Your task to perform on an android device: Open display settings Image 0: 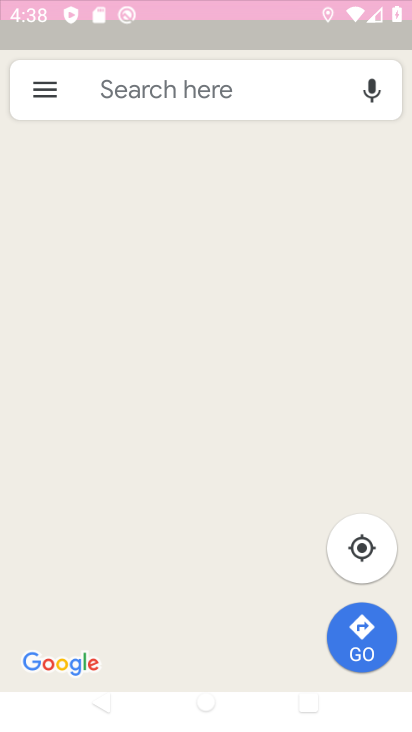
Step 0: click (230, 120)
Your task to perform on an android device: Open display settings Image 1: 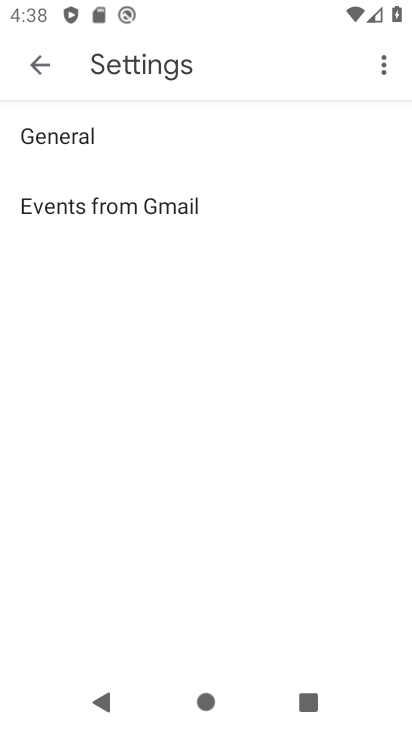
Step 1: click (34, 60)
Your task to perform on an android device: Open display settings Image 2: 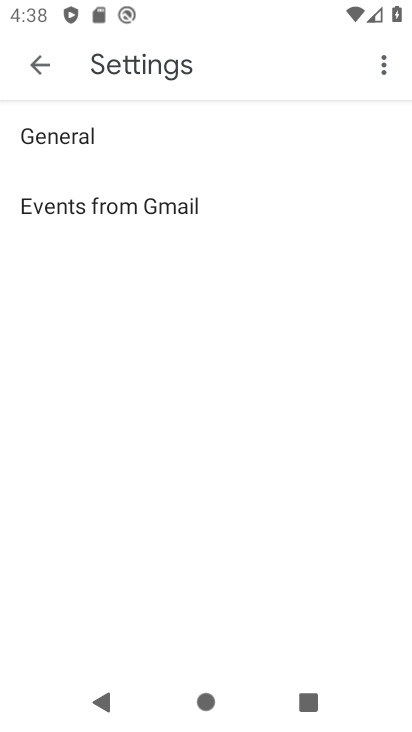
Step 2: click (34, 63)
Your task to perform on an android device: Open display settings Image 3: 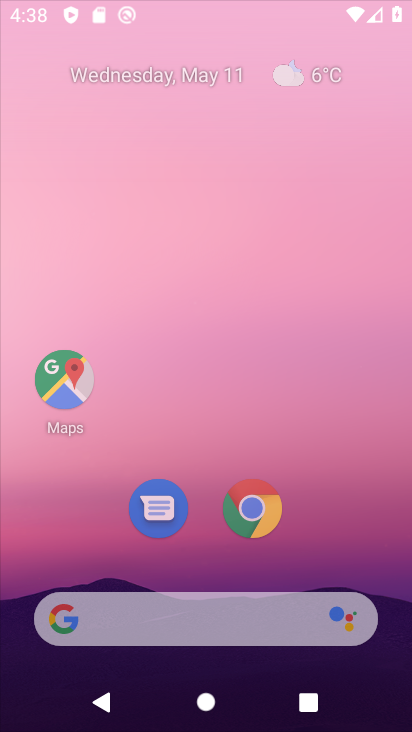
Step 3: click (24, 80)
Your task to perform on an android device: Open display settings Image 4: 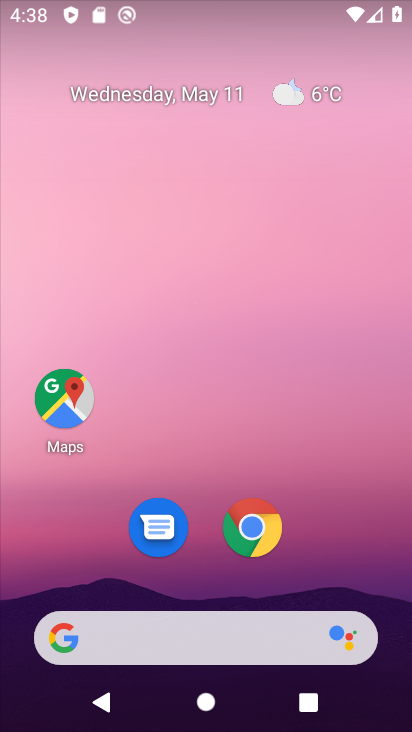
Step 4: drag from (342, 561) to (173, 0)
Your task to perform on an android device: Open display settings Image 5: 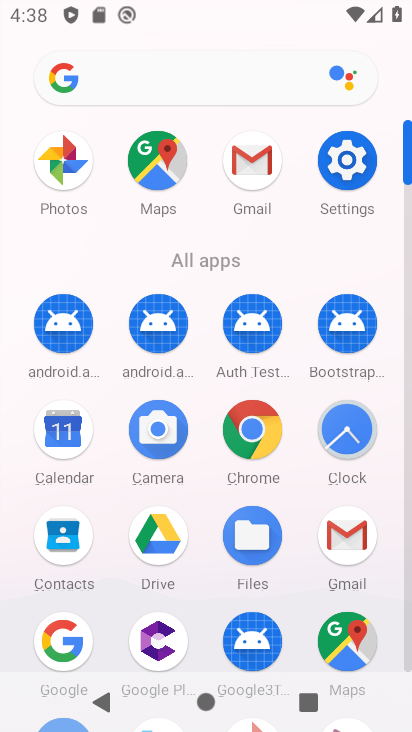
Step 5: click (364, 162)
Your task to perform on an android device: Open display settings Image 6: 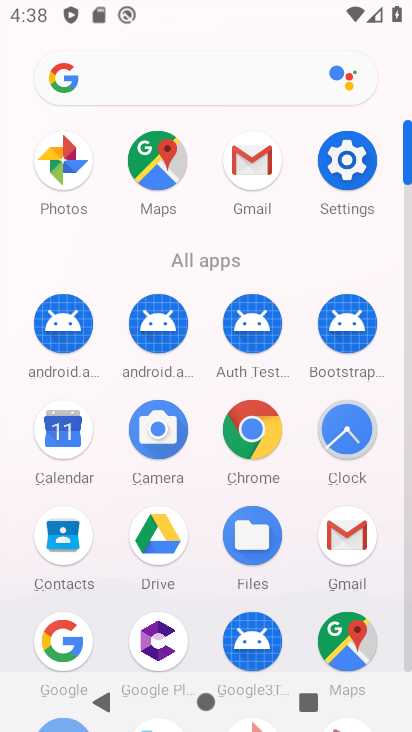
Step 6: click (339, 169)
Your task to perform on an android device: Open display settings Image 7: 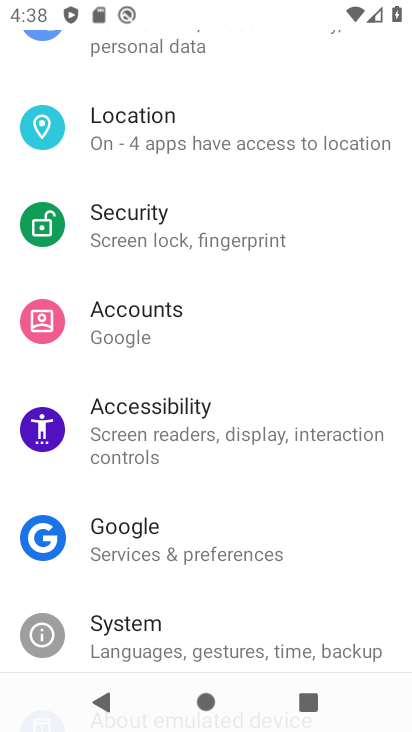
Step 7: click (346, 157)
Your task to perform on an android device: Open display settings Image 8: 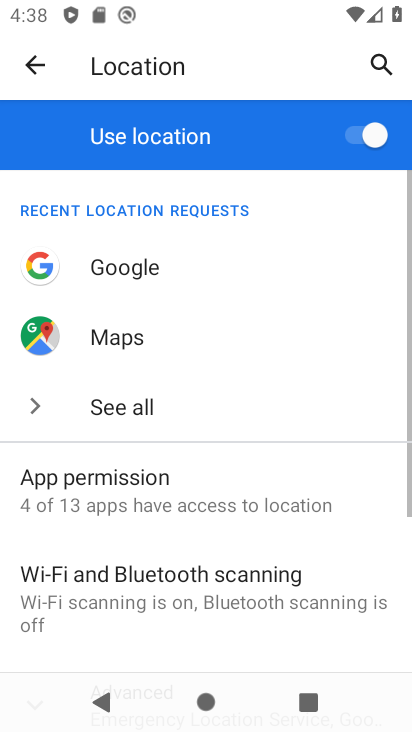
Step 8: click (22, 69)
Your task to perform on an android device: Open display settings Image 9: 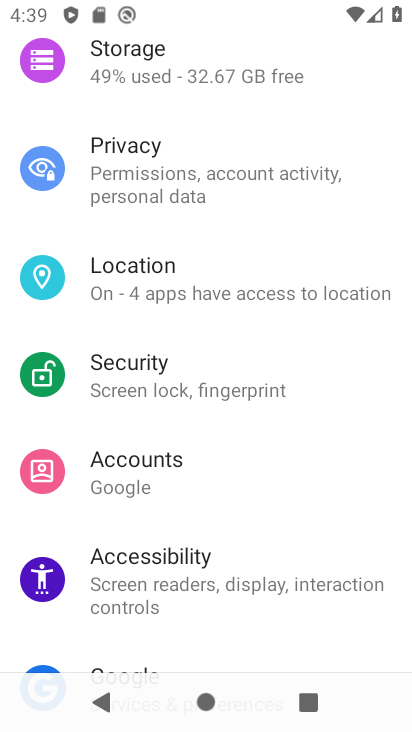
Step 9: drag from (169, 397) to (176, 118)
Your task to perform on an android device: Open display settings Image 10: 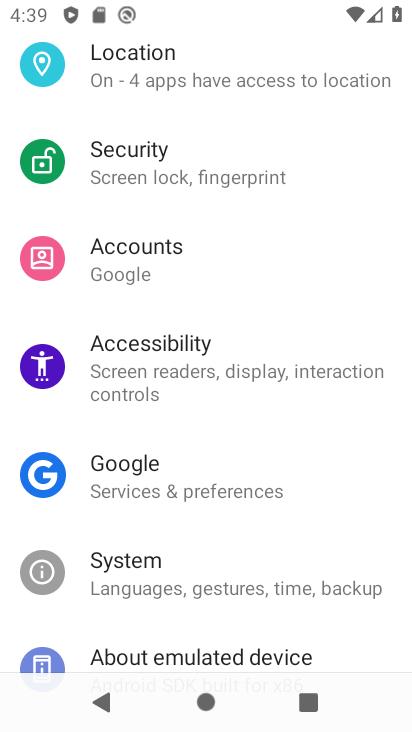
Step 10: drag from (246, 491) to (217, 153)
Your task to perform on an android device: Open display settings Image 11: 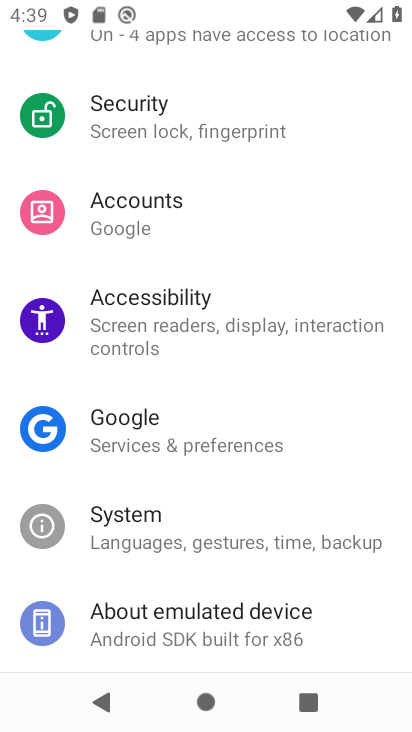
Step 11: drag from (147, 215) to (192, 525)
Your task to perform on an android device: Open display settings Image 12: 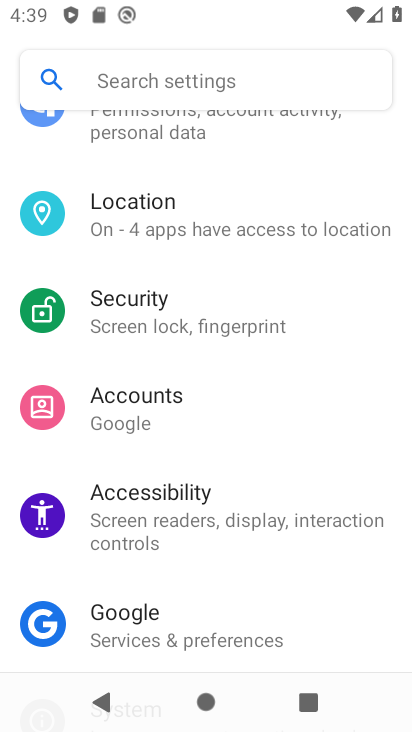
Step 12: drag from (169, 137) to (227, 559)
Your task to perform on an android device: Open display settings Image 13: 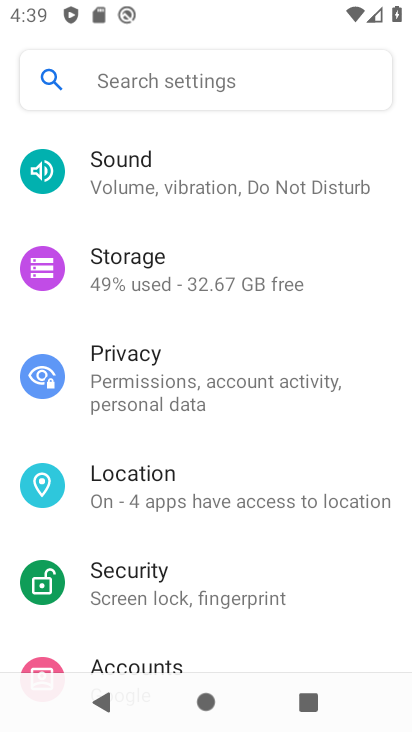
Step 13: drag from (131, 174) to (254, 610)
Your task to perform on an android device: Open display settings Image 14: 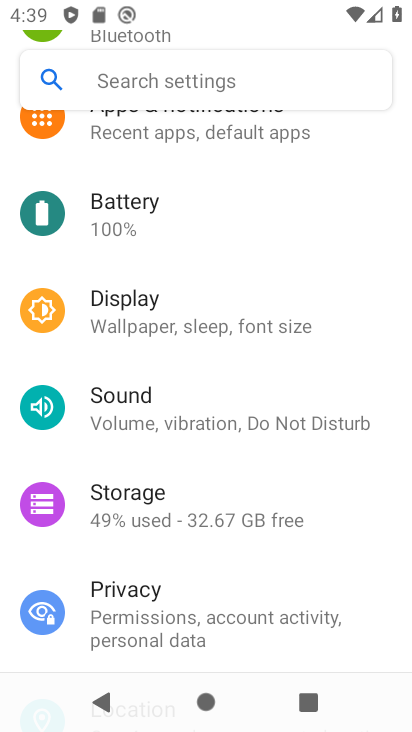
Step 14: click (118, 316)
Your task to perform on an android device: Open display settings Image 15: 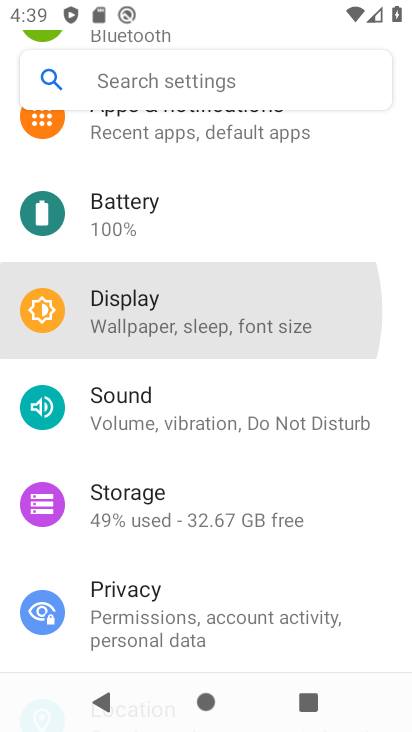
Step 15: click (118, 316)
Your task to perform on an android device: Open display settings Image 16: 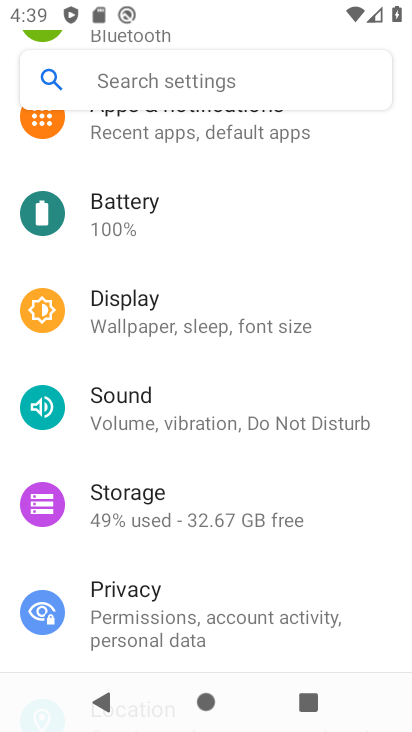
Step 16: click (119, 317)
Your task to perform on an android device: Open display settings Image 17: 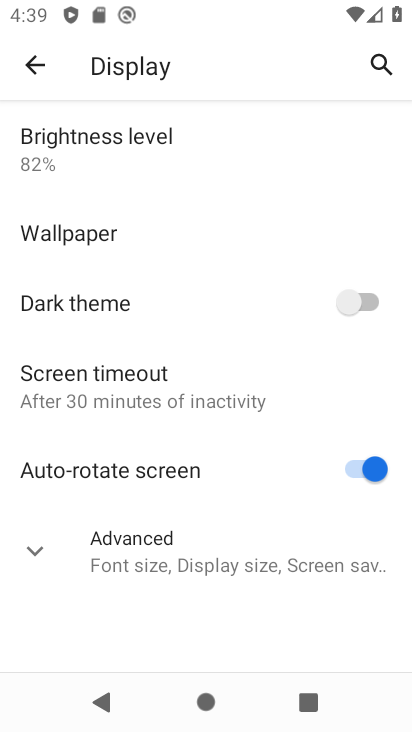
Step 17: click (122, 320)
Your task to perform on an android device: Open display settings Image 18: 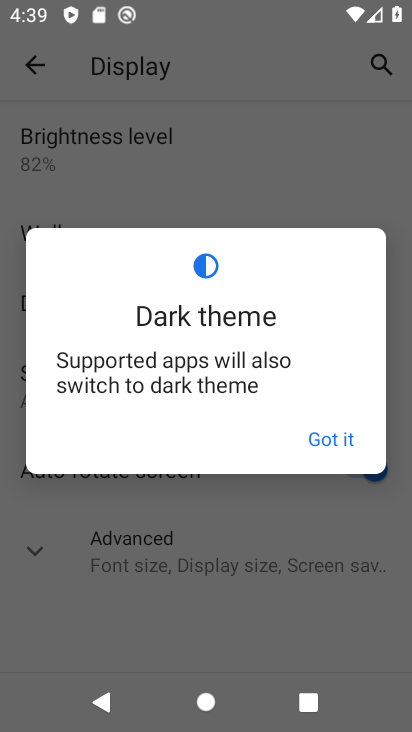
Step 18: click (275, 171)
Your task to perform on an android device: Open display settings Image 19: 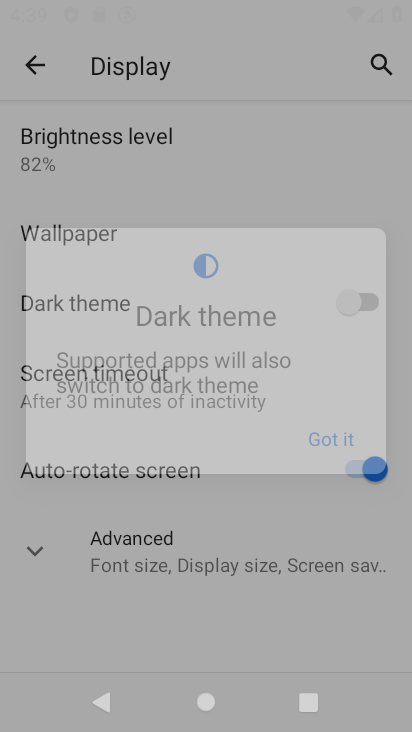
Step 19: click (269, 163)
Your task to perform on an android device: Open display settings Image 20: 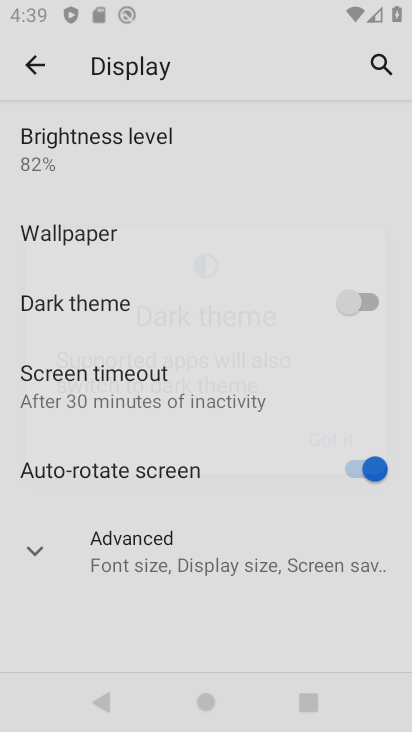
Step 20: click (268, 162)
Your task to perform on an android device: Open display settings Image 21: 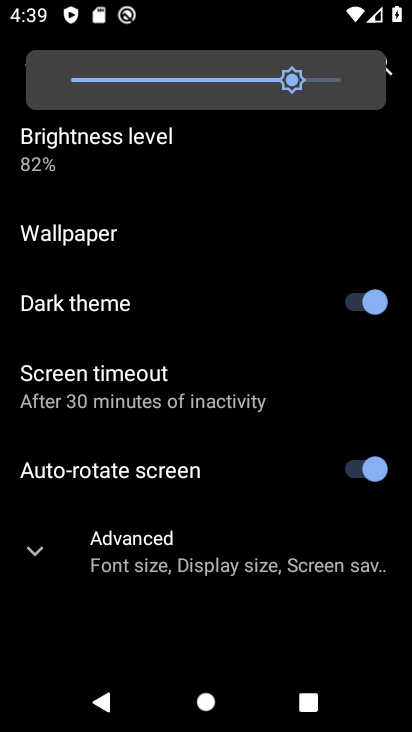
Step 21: click (375, 286)
Your task to perform on an android device: Open display settings Image 22: 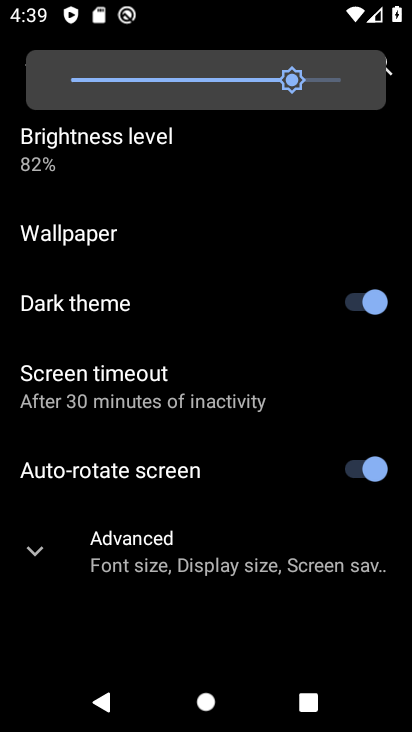
Step 22: click (372, 295)
Your task to perform on an android device: Open display settings Image 23: 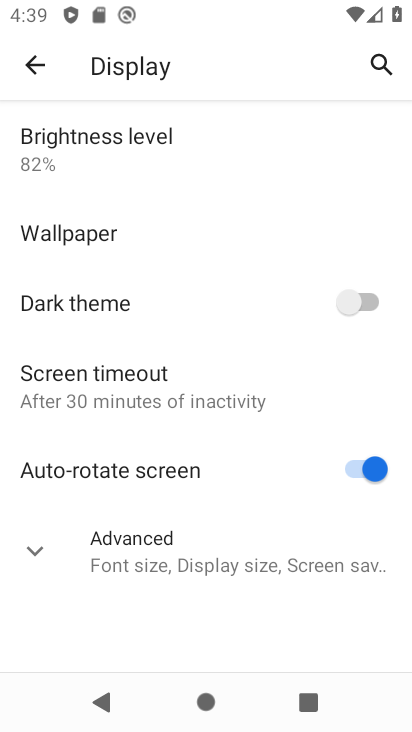
Step 23: click (372, 297)
Your task to perform on an android device: Open display settings Image 24: 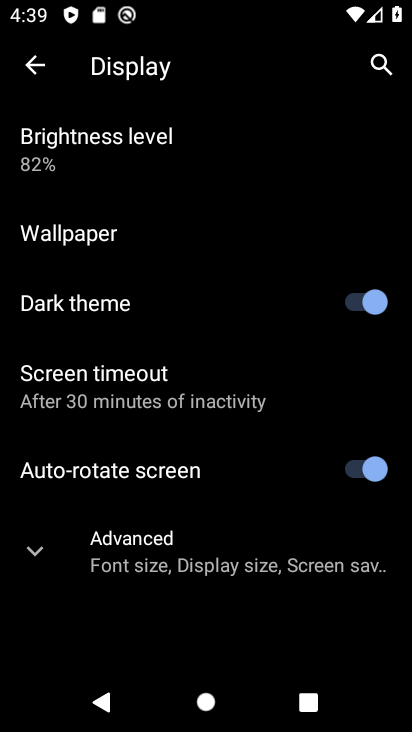
Step 24: click (368, 299)
Your task to perform on an android device: Open display settings Image 25: 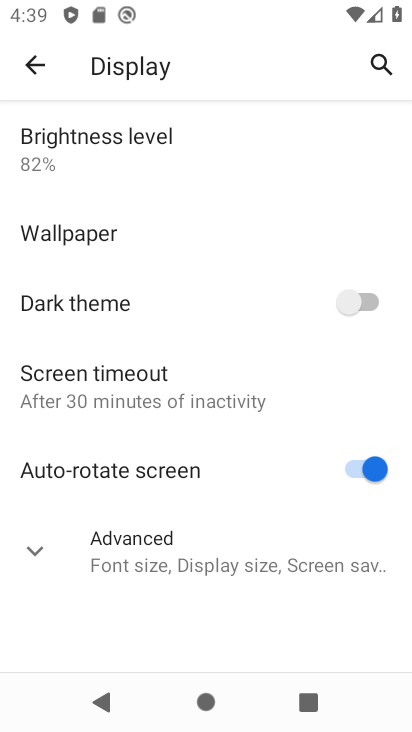
Step 25: task complete